Your task to perform on an android device: Add logitech g pro to the cart on newegg Image 0: 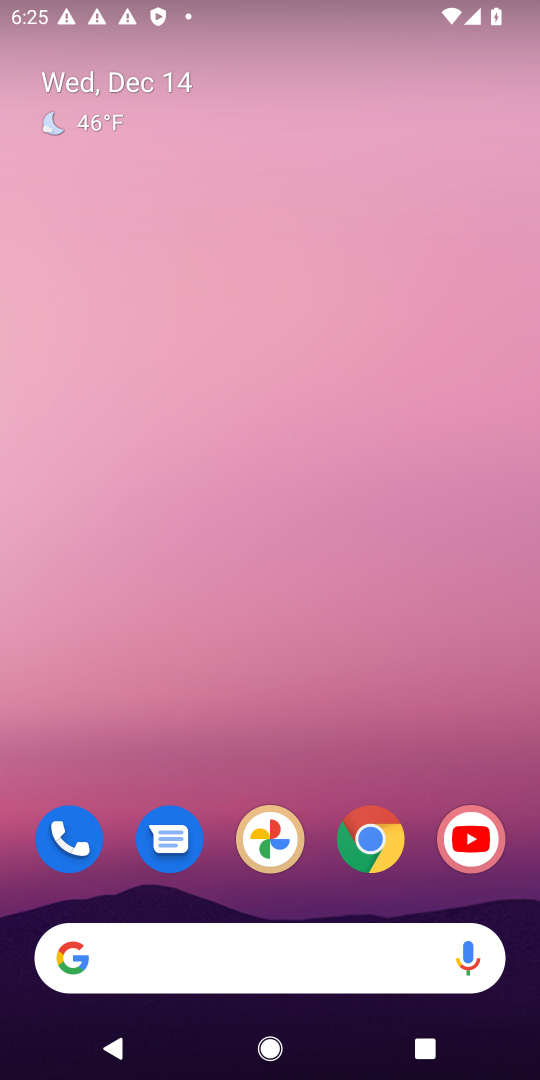
Step 0: click (395, 853)
Your task to perform on an android device: Add logitech g pro to the cart on newegg Image 1: 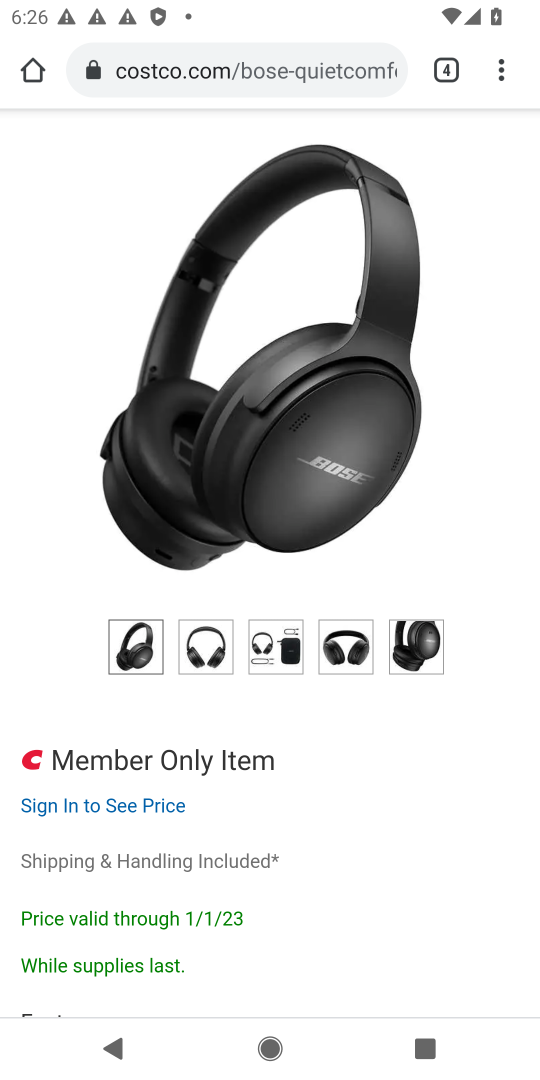
Step 1: click (204, 87)
Your task to perform on an android device: Add logitech g pro to the cart on newegg Image 2: 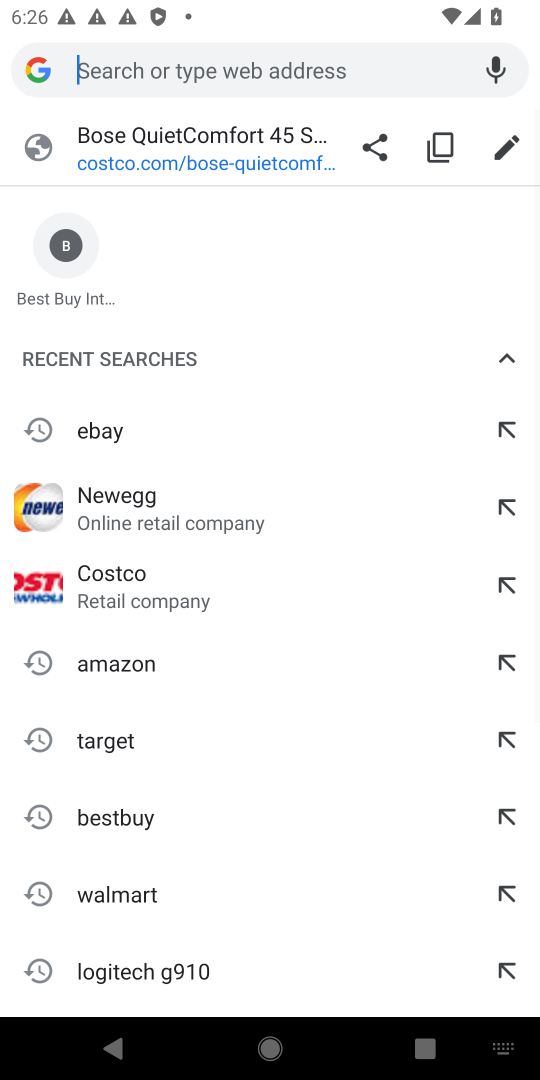
Step 2: type "newegg"
Your task to perform on an android device: Add logitech g pro to the cart on newegg Image 3: 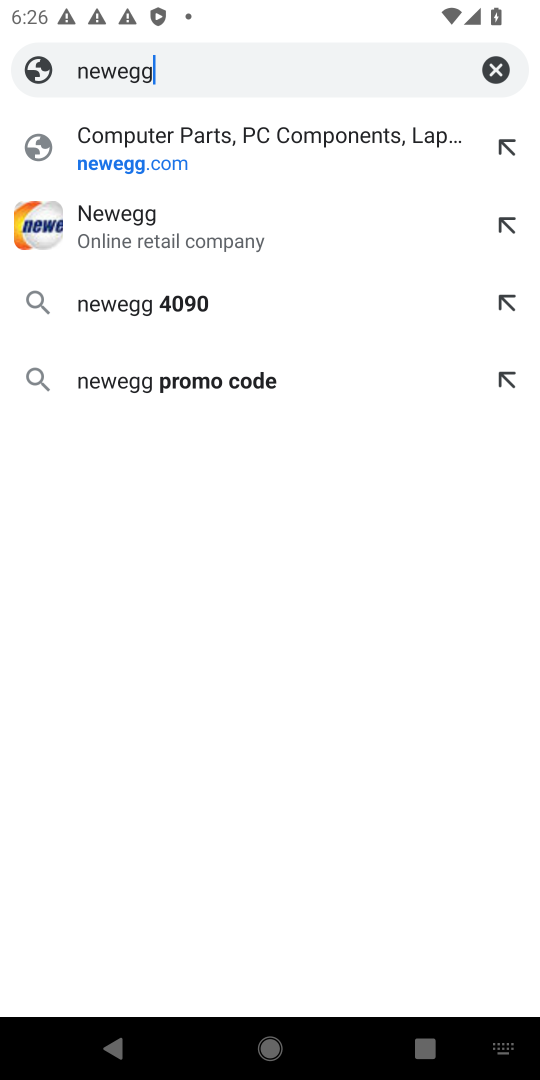
Step 3: click (156, 258)
Your task to perform on an android device: Add logitech g pro to the cart on newegg Image 4: 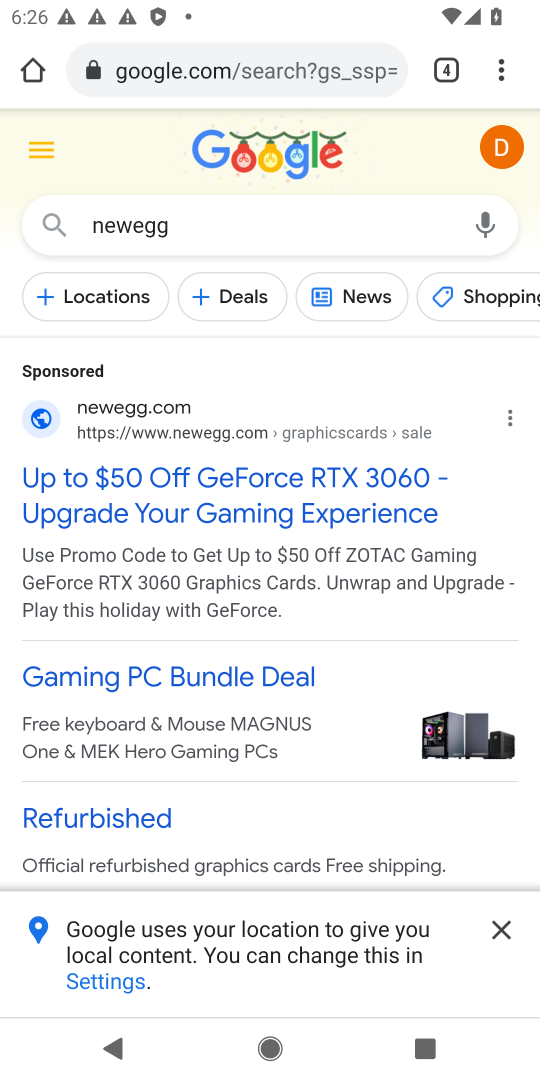
Step 4: click (155, 486)
Your task to perform on an android device: Add logitech g pro to the cart on newegg Image 5: 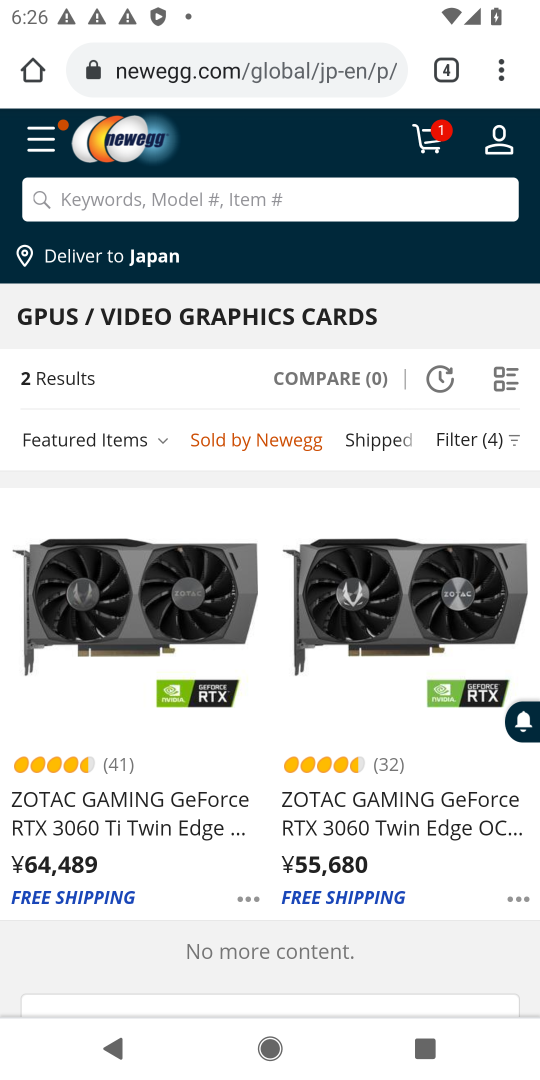
Step 5: click (124, 214)
Your task to perform on an android device: Add logitech g pro to the cart on newegg Image 6: 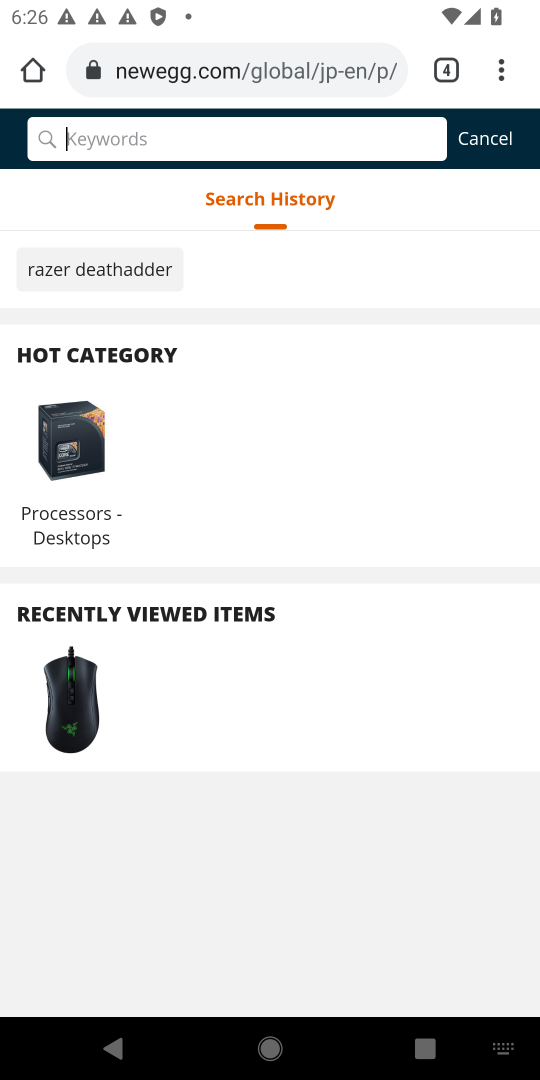
Step 6: type "lgitech g pro"
Your task to perform on an android device: Add logitech g pro to the cart on newegg Image 7: 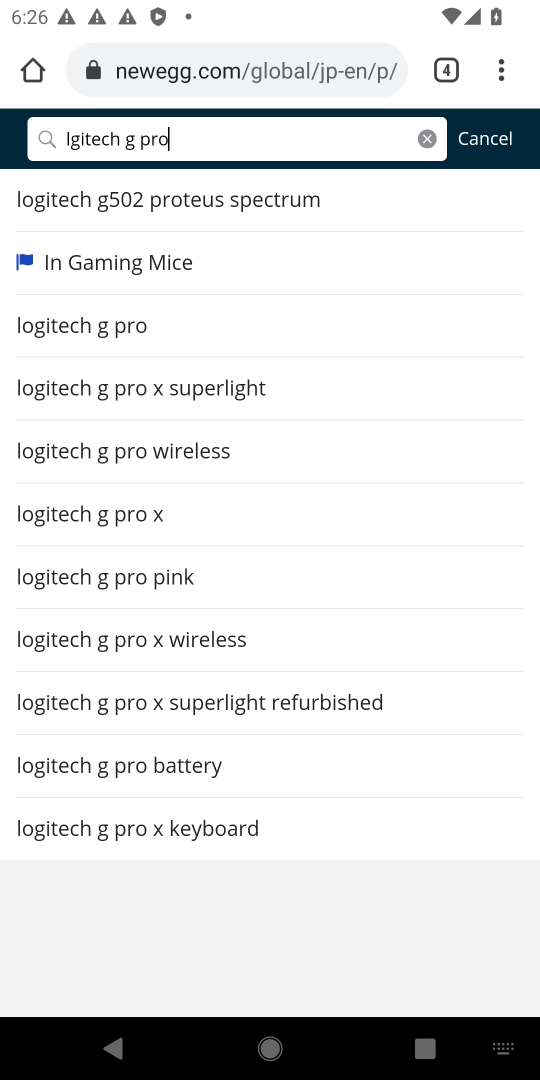
Step 7: click (198, 207)
Your task to perform on an android device: Add logitech g pro to the cart on newegg Image 8: 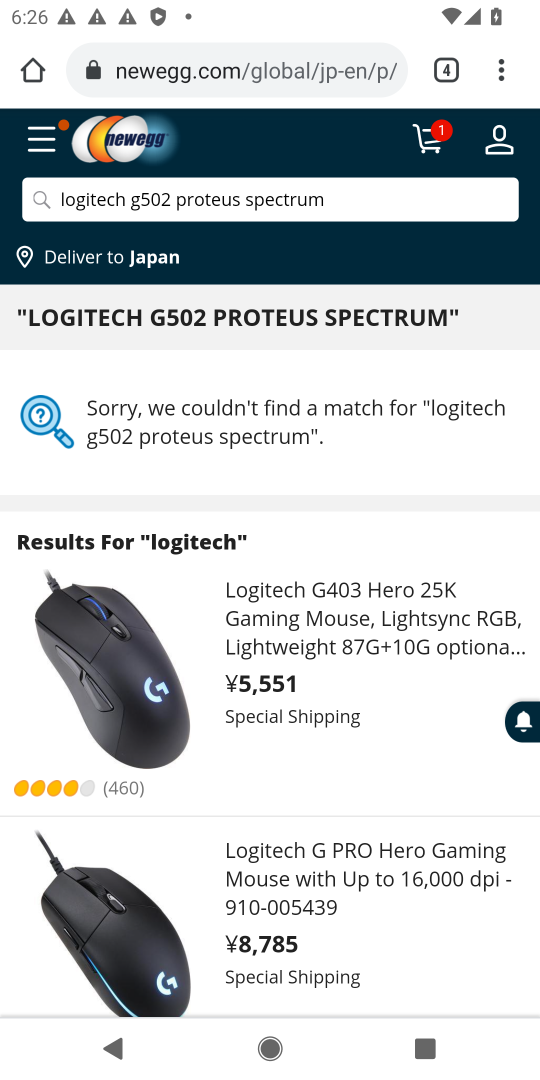
Step 8: click (330, 622)
Your task to perform on an android device: Add logitech g pro to the cart on newegg Image 9: 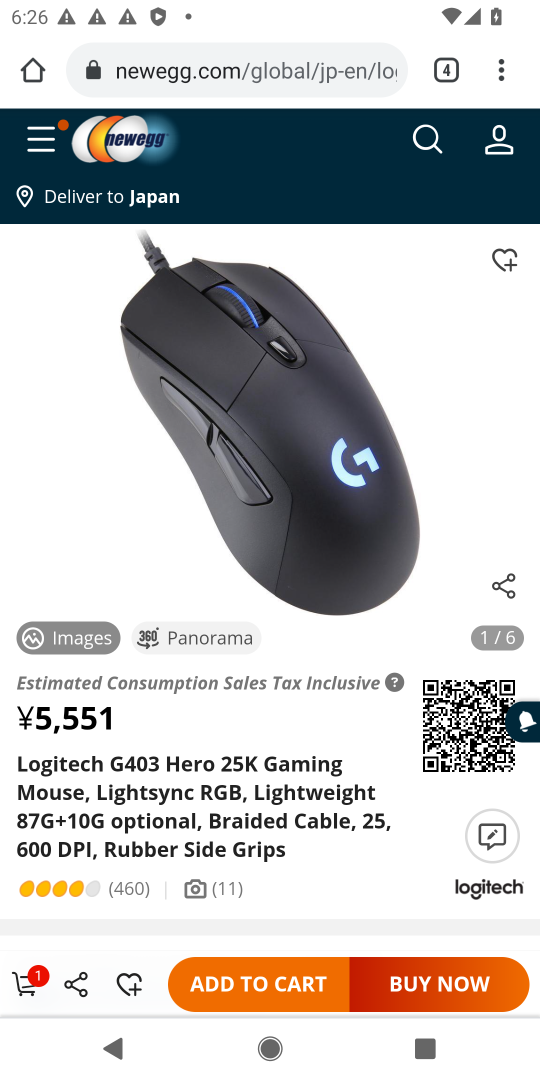
Step 9: click (289, 983)
Your task to perform on an android device: Add logitech g pro to the cart on newegg Image 10: 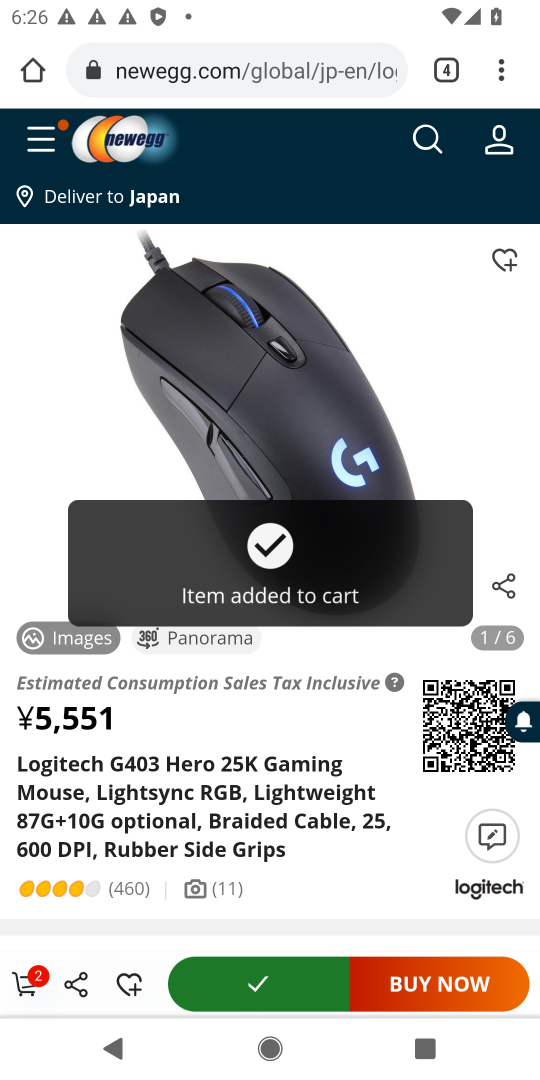
Step 10: task complete